Your task to perform on an android device: Set the phone to "Do not disturb". Image 0: 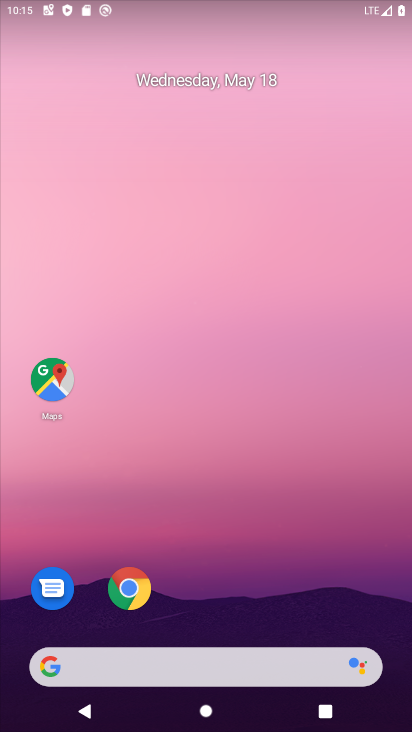
Step 0: drag from (367, 616) to (230, 20)
Your task to perform on an android device: Set the phone to "Do not disturb". Image 1: 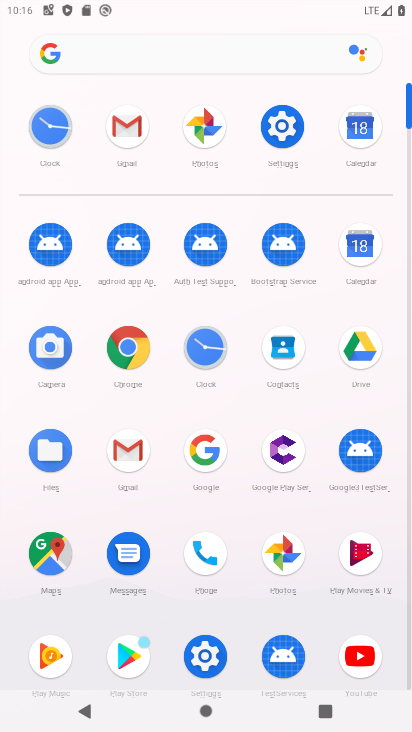
Step 1: click (284, 137)
Your task to perform on an android device: Set the phone to "Do not disturb". Image 2: 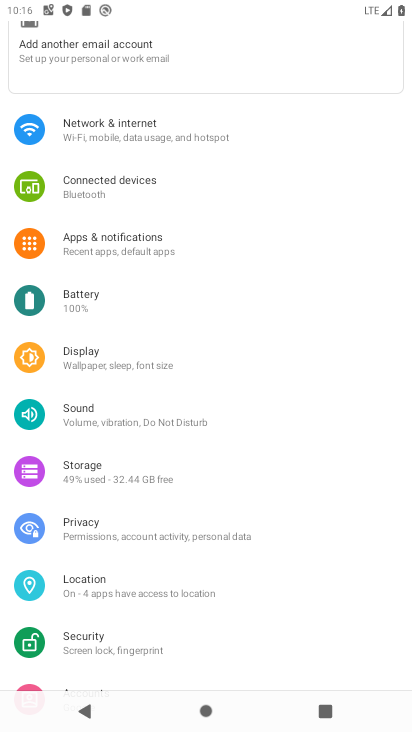
Step 2: click (86, 408)
Your task to perform on an android device: Set the phone to "Do not disturb". Image 3: 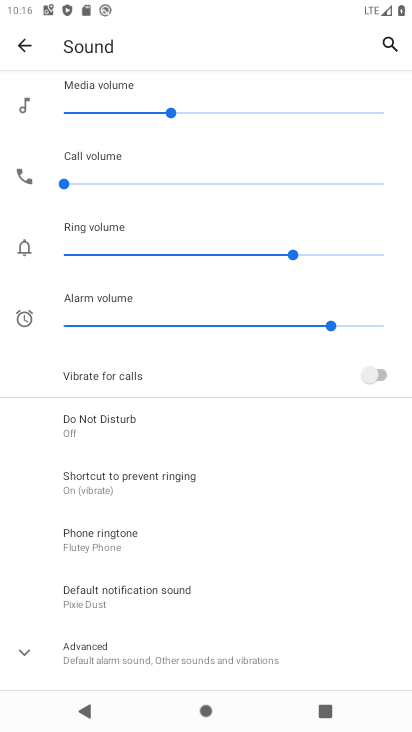
Step 3: click (86, 425)
Your task to perform on an android device: Set the phone to "Do not disturb". Image 4: 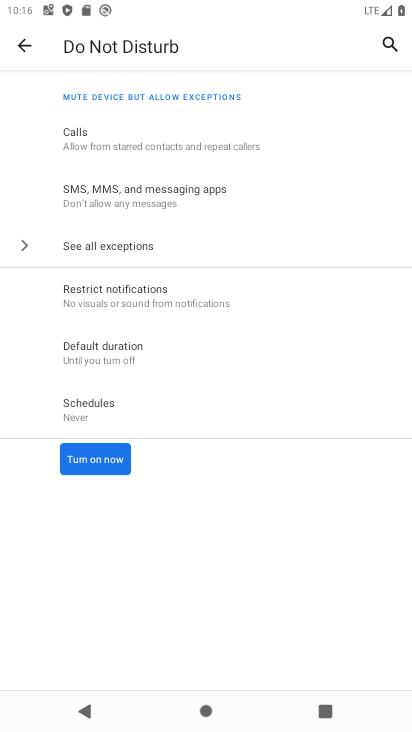
Step 4: click (94, 464)
Your task to perform on an android device: Set the phone to "Do not disturb". Image 5: 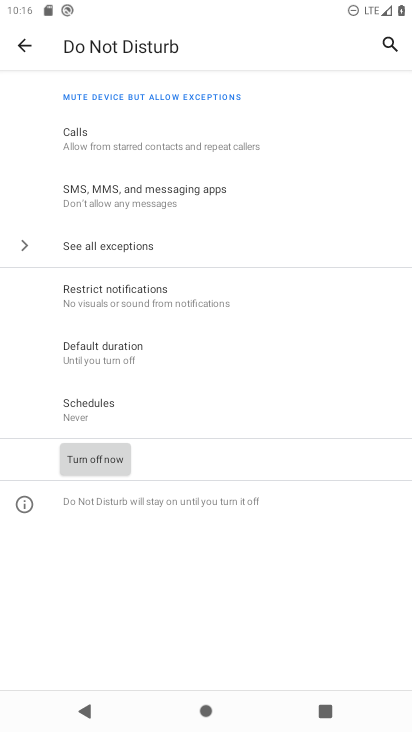
Step 5: task complete